Your task to perform on an android device: Show me popular games on the Play Store Image 0: 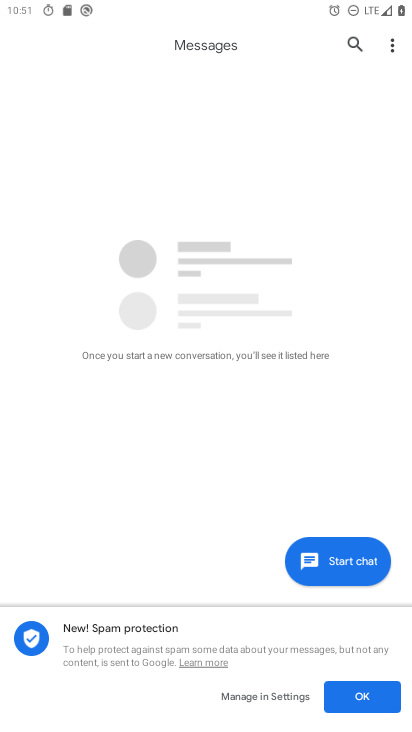
Step 0: press home button
Your task to perform on an android device: Show me popular games on the Play Store Image 1: 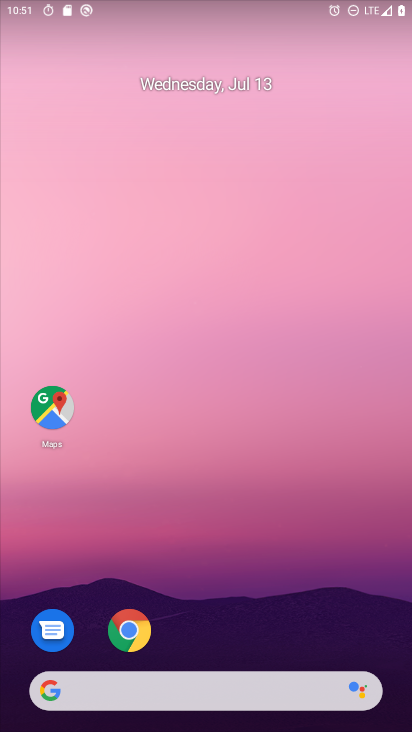
Step 1: drag from (386, 676) to (233, 1)
Your task to perform on an android device: Show me popular games on the Play Store Image 2: 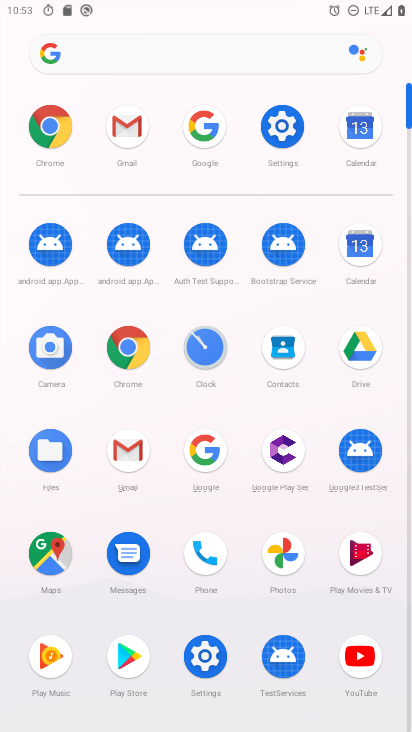
Step 2: click (126, 669)
Your task to perform on an android device: Show me popular games on the Play Store Image 3: 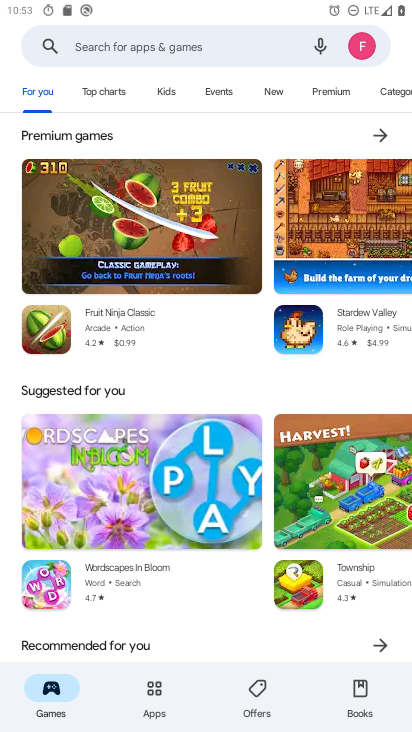
Step 3: task complete